Your task to perform on an android device: View the shopping cart on bestbuy.com. Search for usb-c to usb-a on bestbuy.com, select the first entry, and add it to the cart. Image 0: 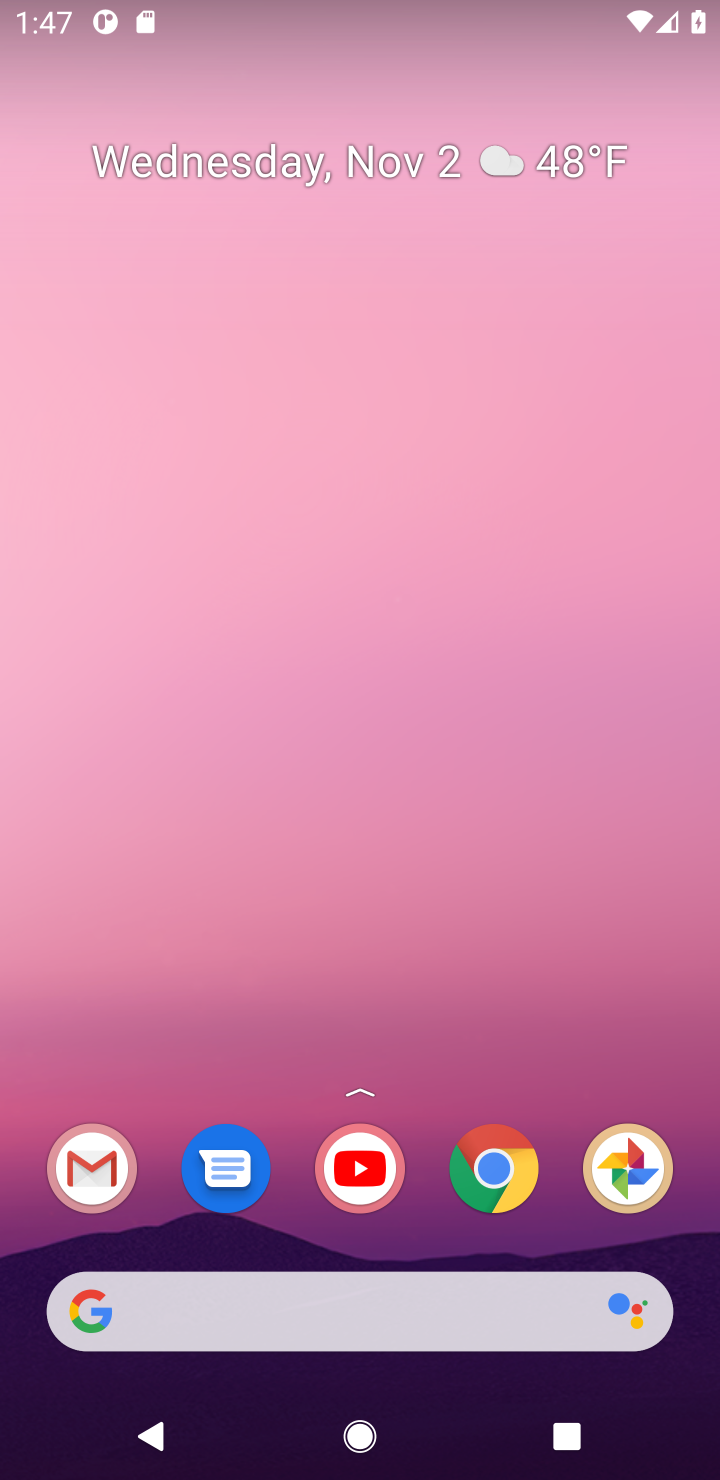
Step 0: click (317, 1307)
Your task to perform on an android device: View the shopping cart on bestbuy.com. Search for usb-c to usb-a on bestbuy.com, select the first entry, and add it to the cart. Image 1: 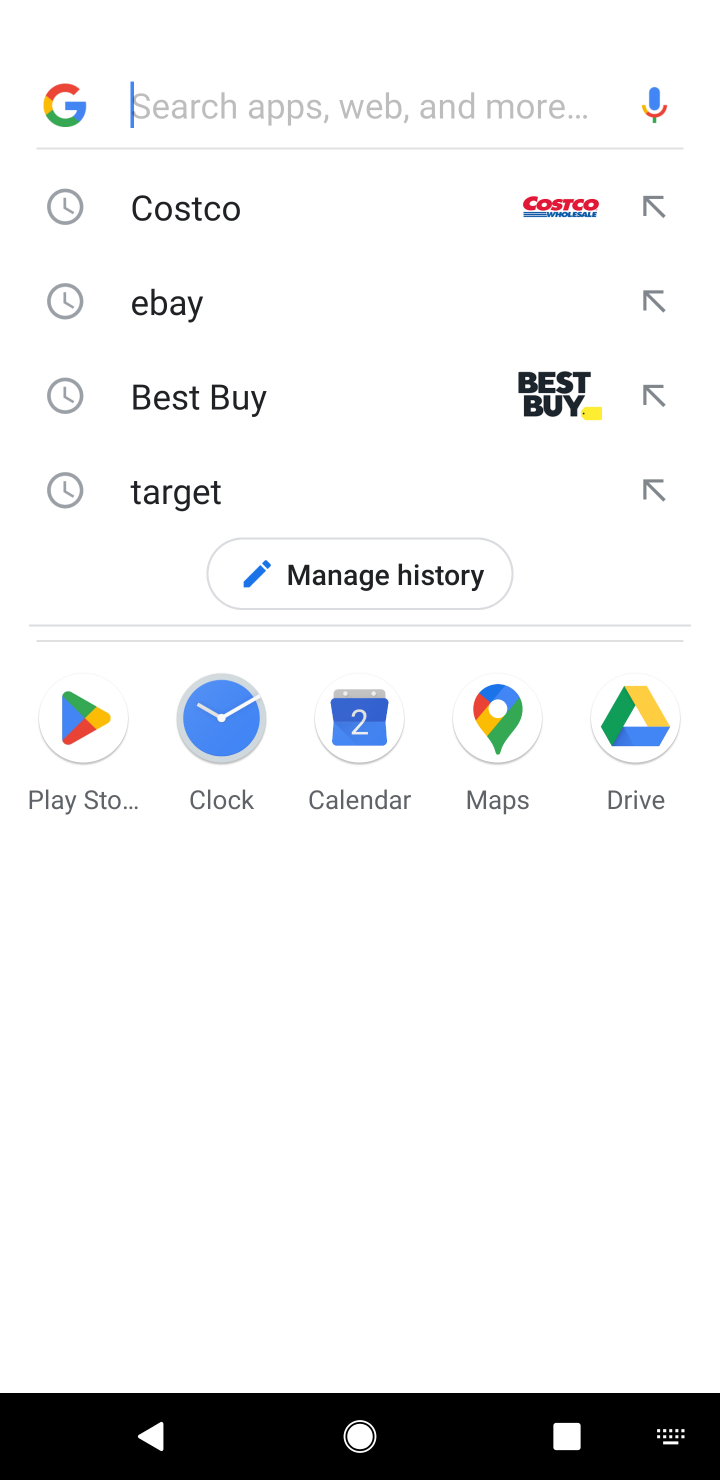
Step 1: type "bestbuy.com"
Your task to perform on an android device: View the shopping cart on bestbuy.com. Search for usb-c to usb-a on bestbuy.com, select the first entry, and add it to the cart. Image 2: 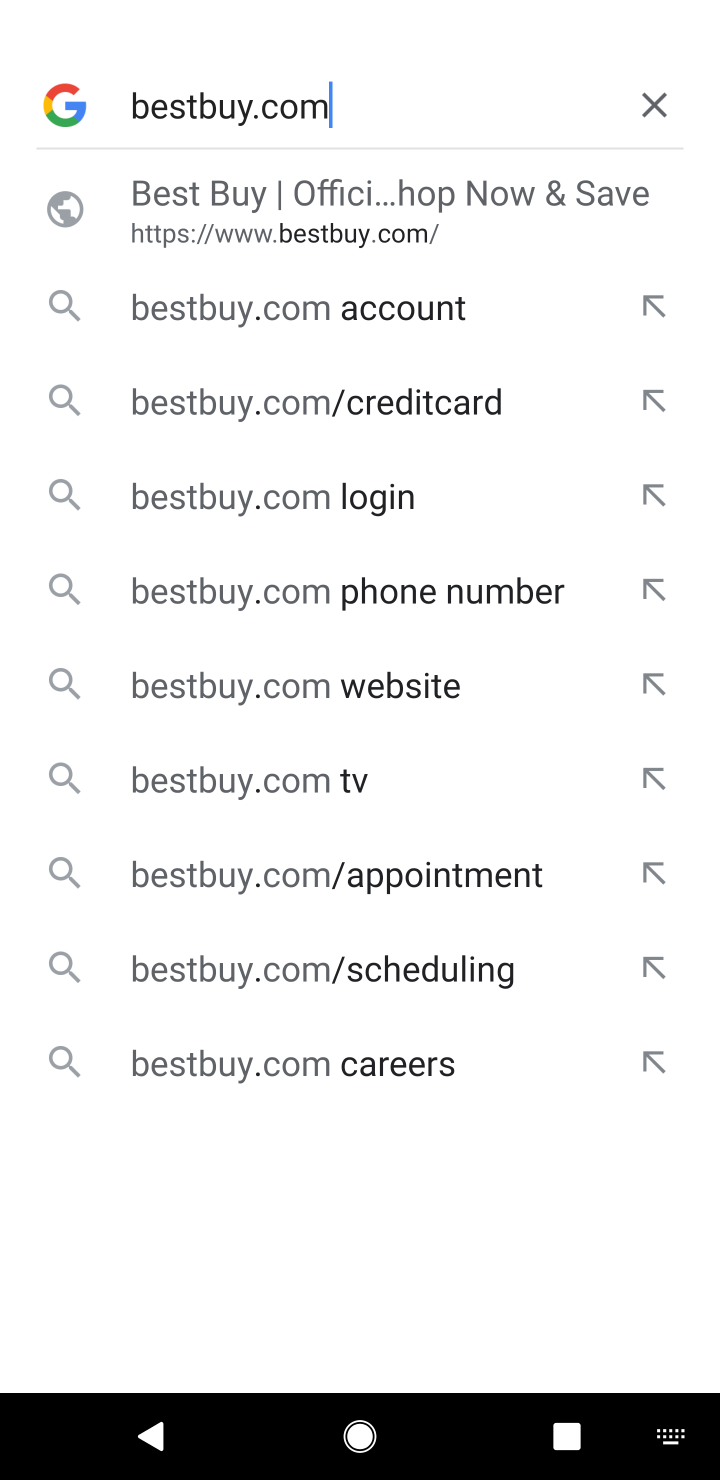
Step 2: click (310, 227)
Your task to perform on an android device: View the shopping cart on bestbuy.com. Search for usb-c to usb-a on bestbuy.com, select the first entry, and add it to the cart. Image 3: 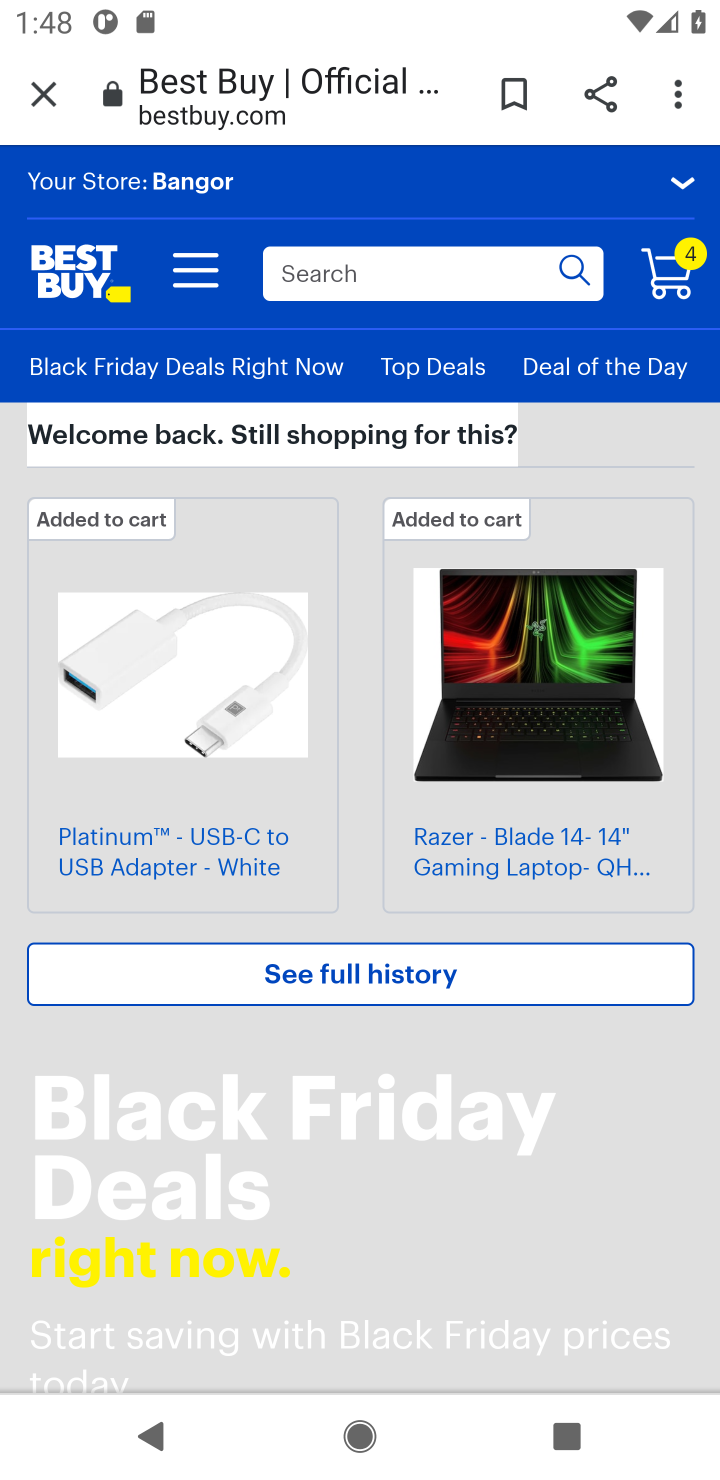
Step 3: click (664, 288)
Your task to perform on an android device: View the shopping cart on bestbuy.com. Search for usb-c to usb-a on bestbuy.com, select the first entry, and add it to the cart. Image 4: 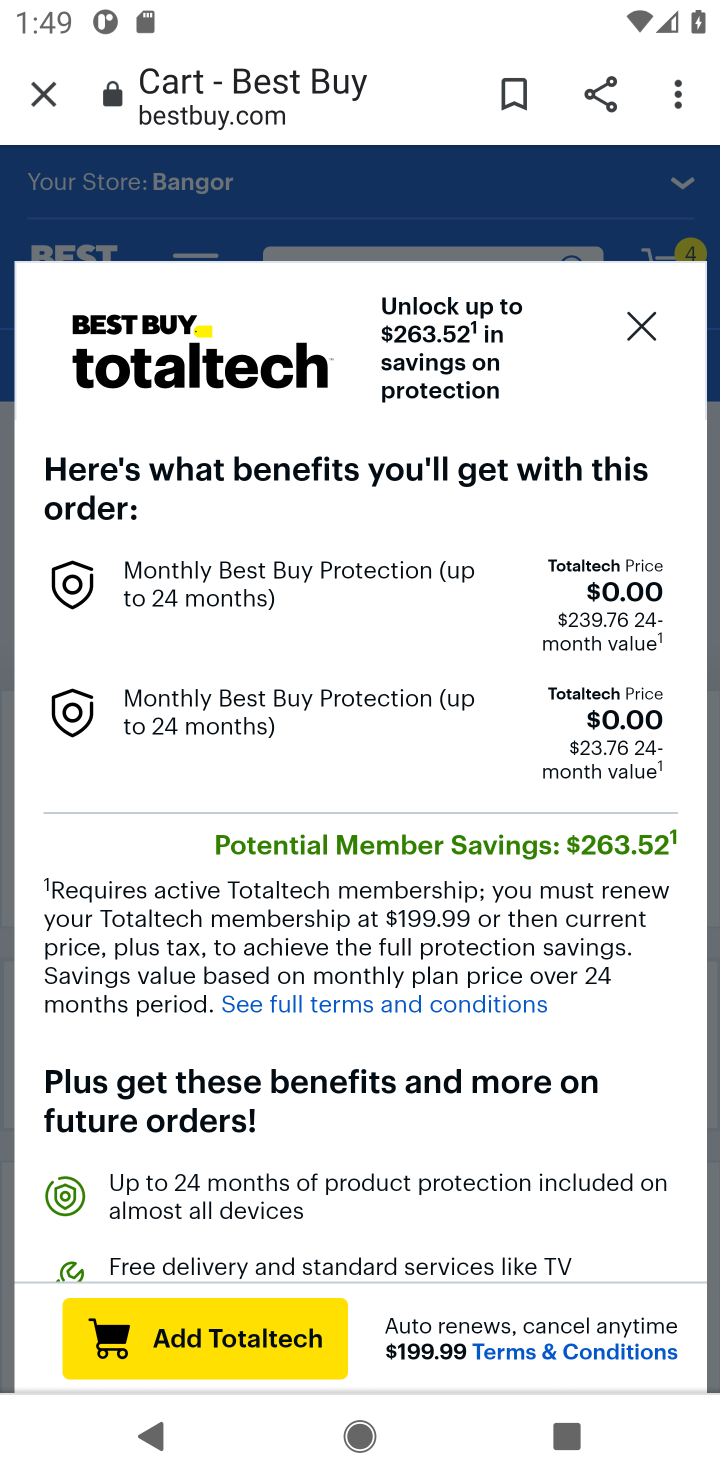
Step 4: click (406, 281)
Your task to perform on an android device: View the shopping cart on bestbuy.com. Search for usb-c to usb-a on bestbuy.com, select the first entry, and add it to the cart. Image 5: 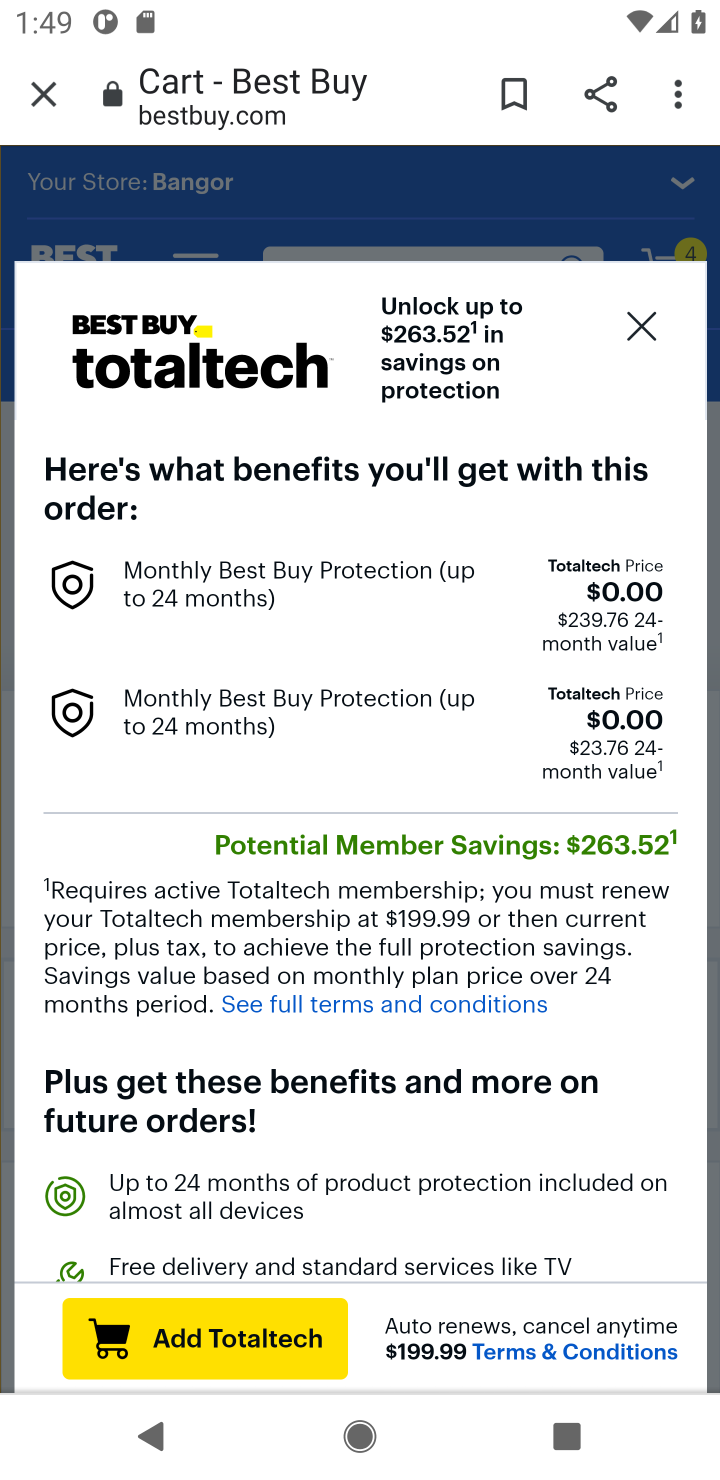
Step 5: click (637, 318)
Your task to perform on an android device: View the shopping cart on bestbuy.com. Search for usb-c to usb-a on bestbuy.com, select the first entry, and add it to the cart. Image 6: 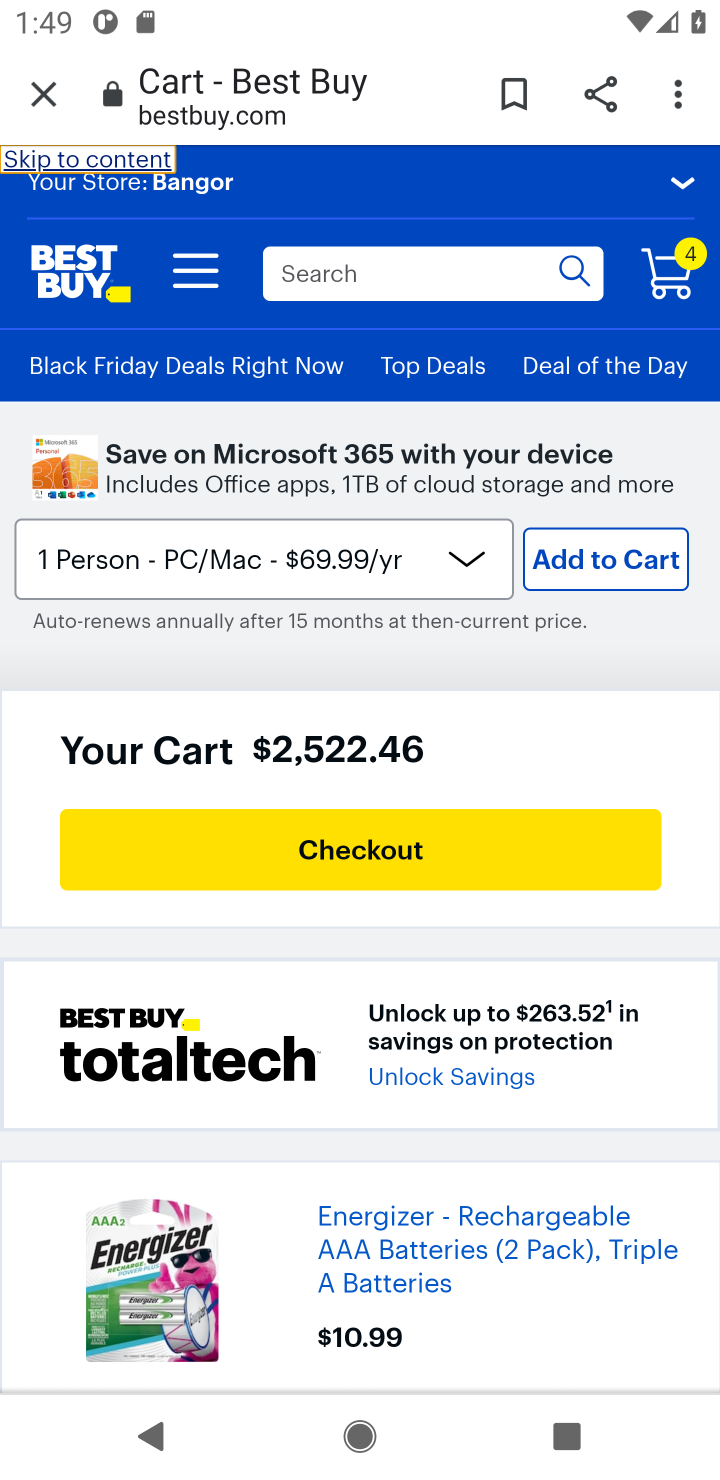
Step 6: click (433, 275)
Your task to perform on an android device: View the shopping cart on bestbuy.com. Search for usb-c to usb-a on bestbuy.com, select the first entry, and add it to the cart. Image 7: 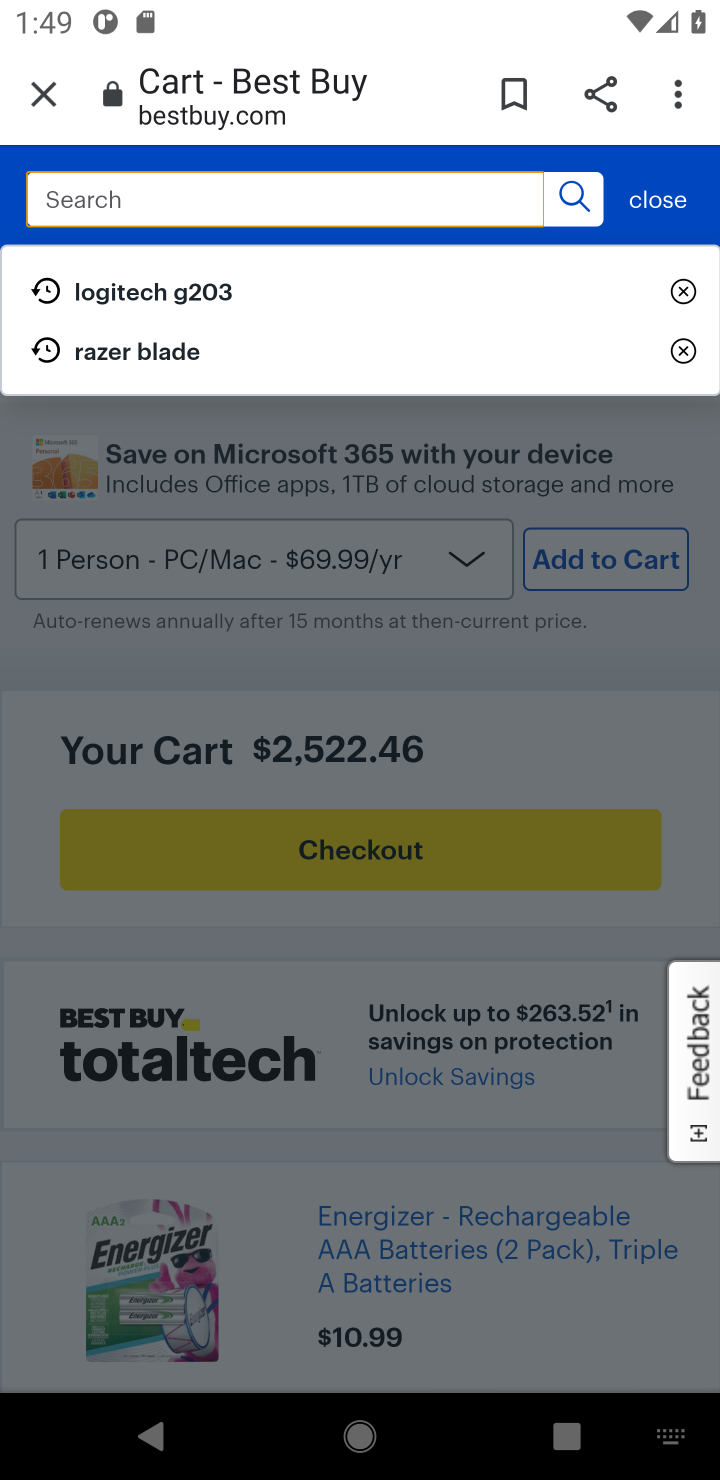
Step 7: type "usb-c to usb-a"
Your task to perform on an android device: View the shopping cart on bestbuy.com. Search for usb-c to usb-a on bestbuy.com, select the first entry, and add it to the cart. Image 8: 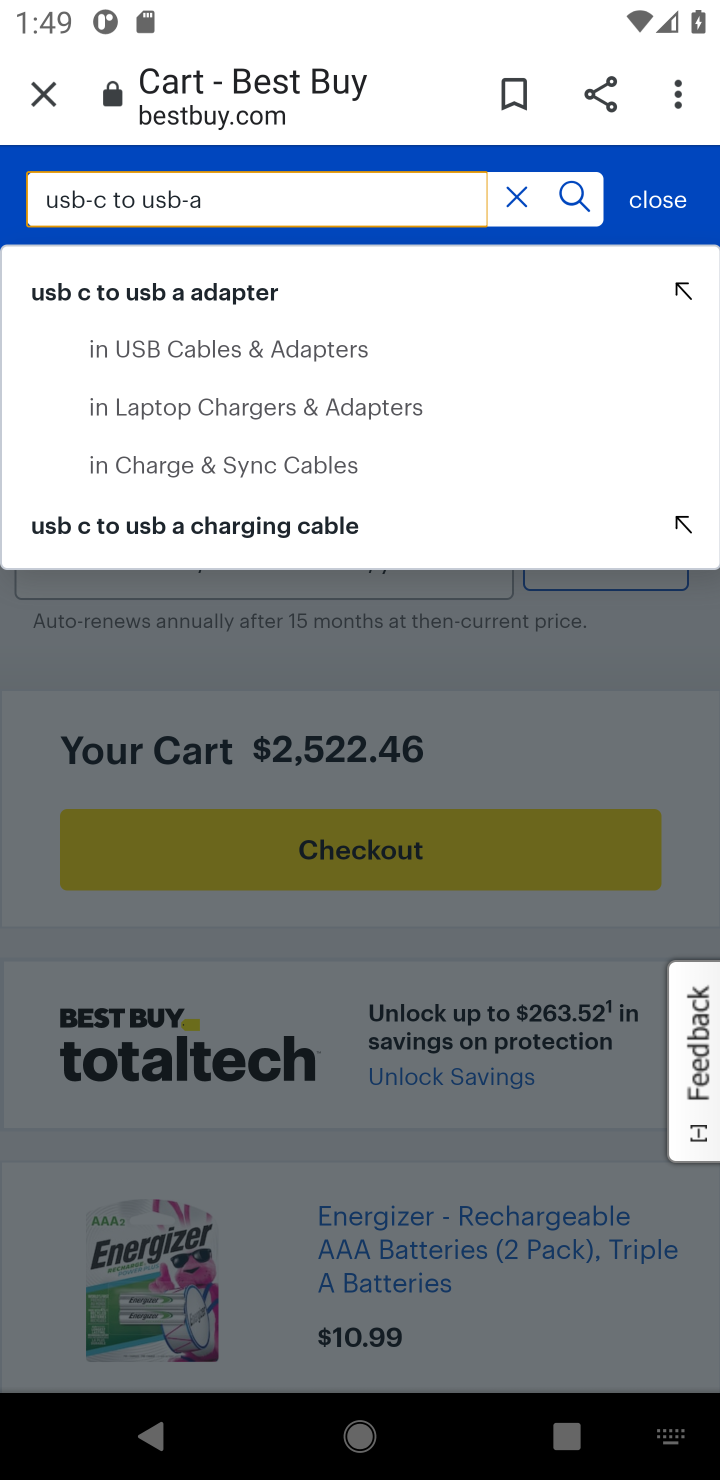
Step 8: click (197, 276)
Your task to perform on an android device: View the shopping cart on bestbuy.com. Search for usb-c to usb-a on bestbuy.com, select the first entry, and add it to the cart. Image 9: 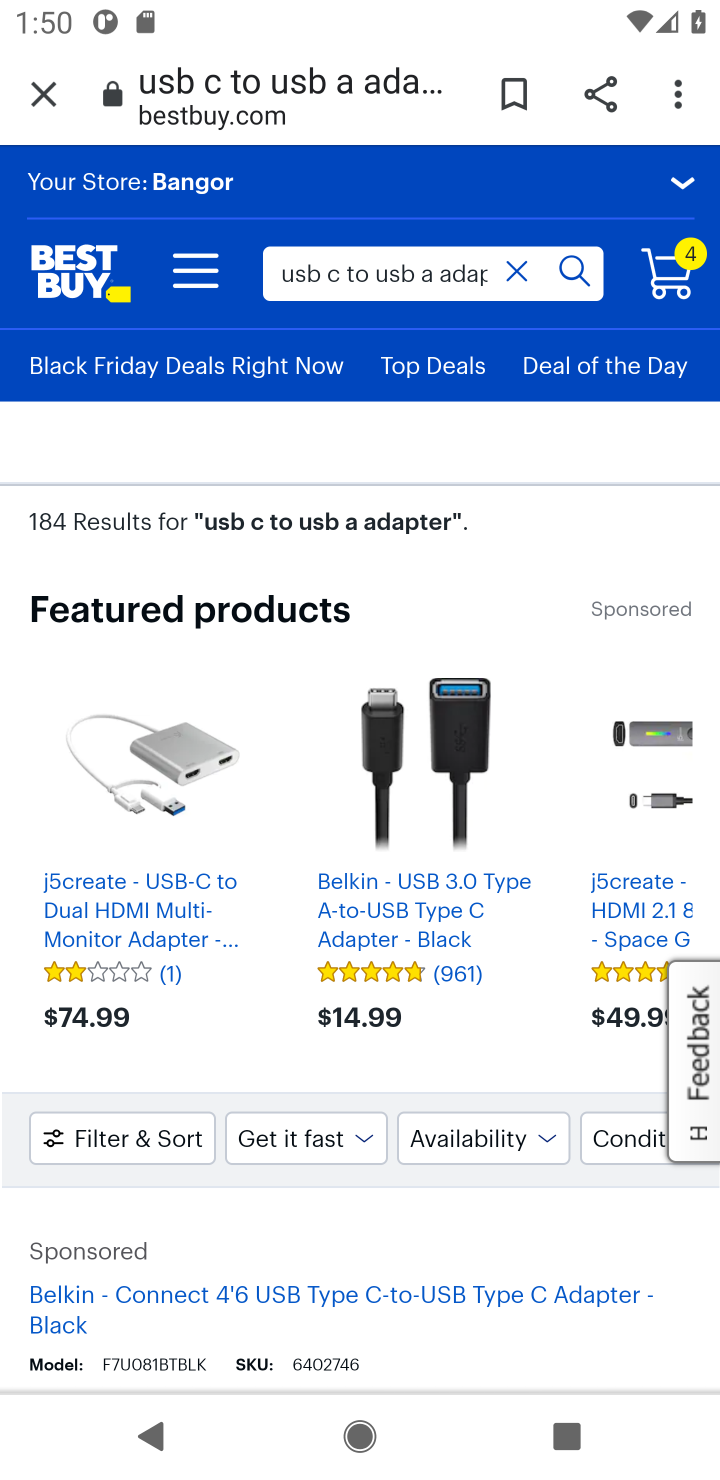
Step 9: click (144, 880)
Your task to perform on an android device: View the shopping cart on bestbuy.com. Search for usb-c to usb-a on bestbuy.com, select the first entry, and add it to the cart. Image 10: 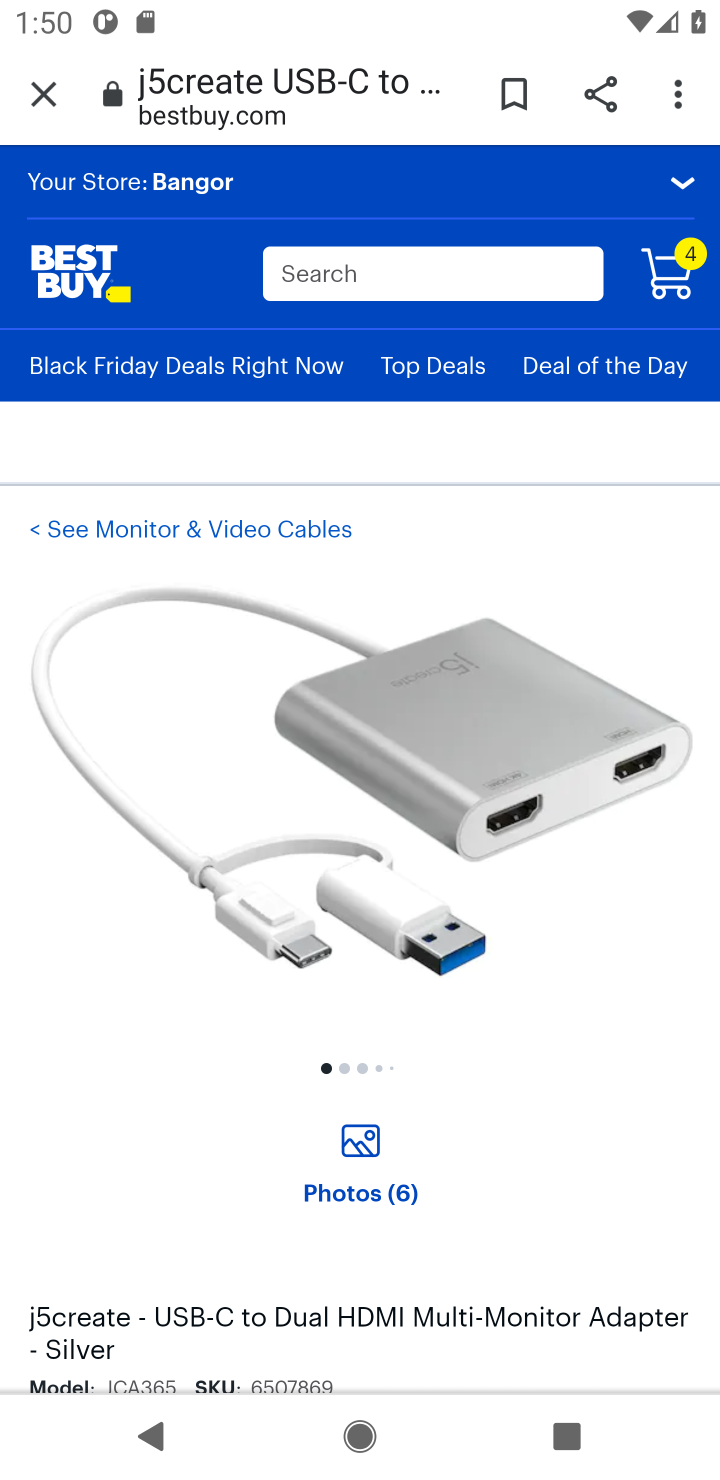
Step 10: drag from (386, 1095) to (422, 628)
Your task to perform on an android device: View the shopping cart on bestbuy.com. Search for usb-c to usb-a on bestbuy.com, select the first entry, and add it to the cart. Image 11: 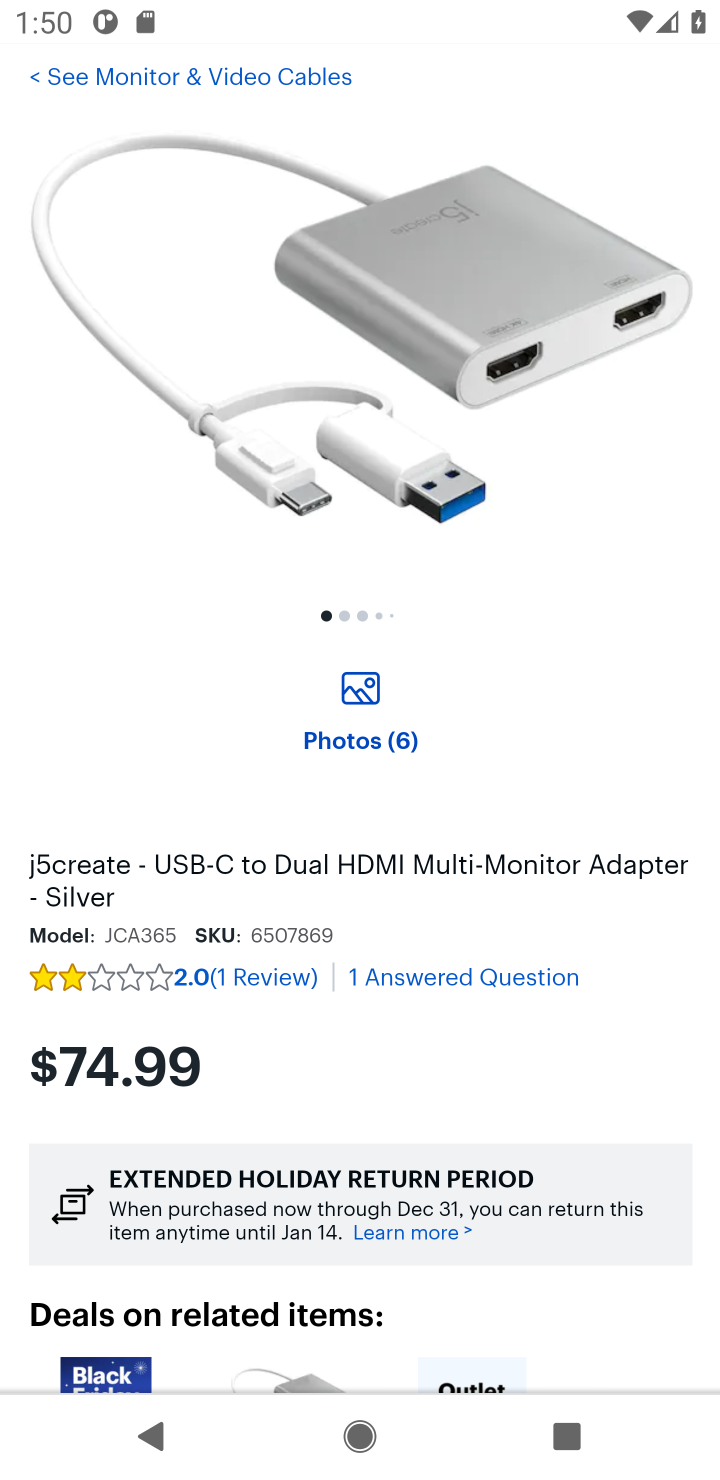
Step 11: drag from (330, 678) to (368, 370)
Your task to perform on an android device: View the shopping cart on bestbuy.com. Search for usb-c to usb-a on bestbuy.com, select the first entry, and add it to the cart. Image 12: 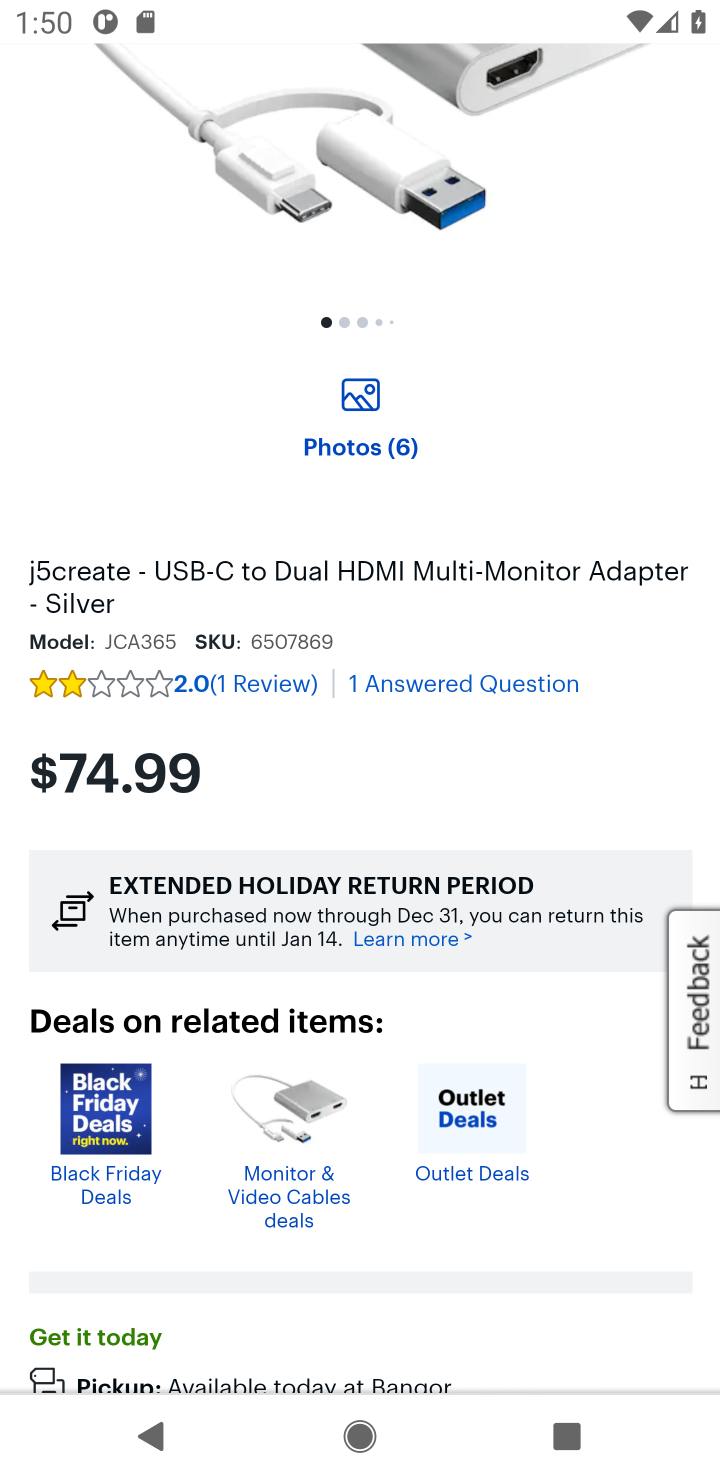
Step 12: drag from (542, 1098) to (518, 591)
Your task to perform on an android device: View the shopping cart on bestbuy.com. Search for usb-c to usb-a on bestbuy.com, select the first entry, and add it to the cart. Image 13: 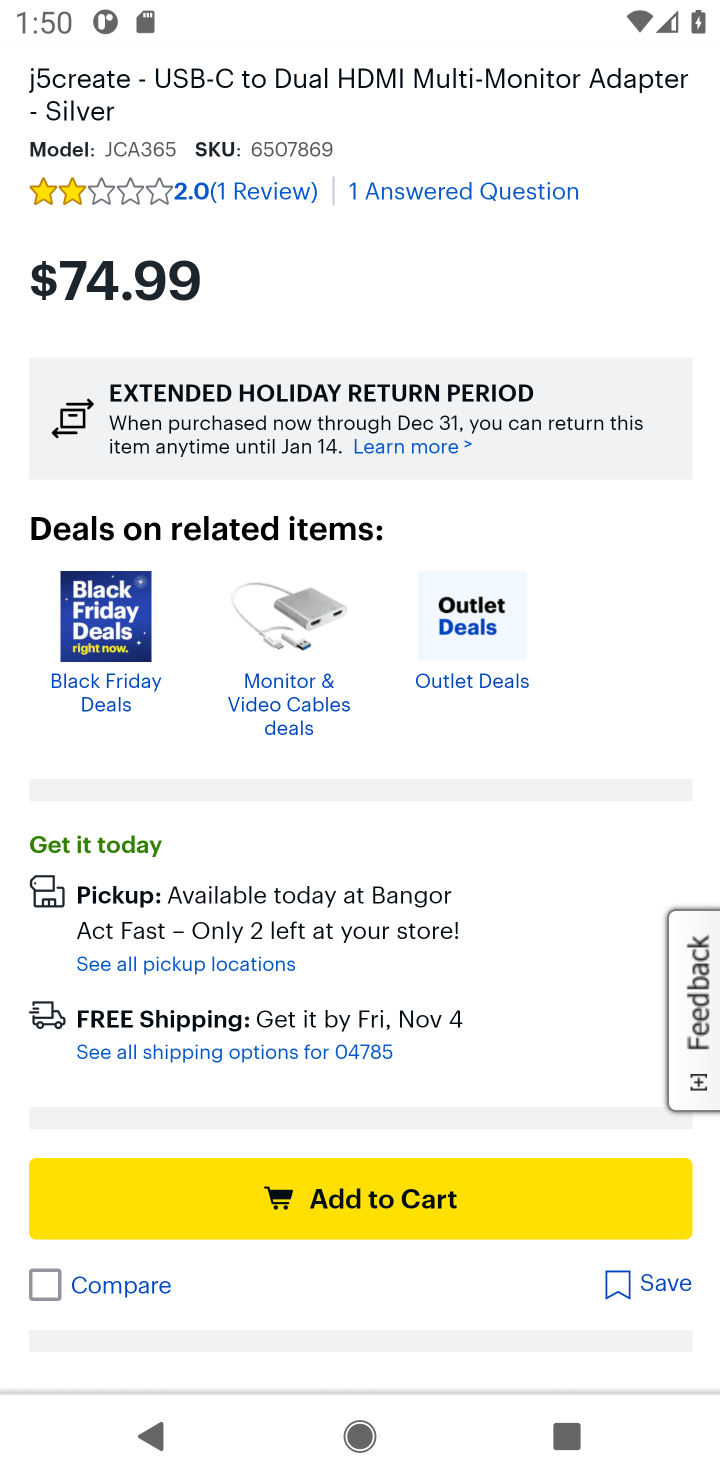
Step 13: click (371, 1199)
Your task to perform on an android device: View the shopping cart on bestbuy.com. Search for usb-c to usb-a on bestbuy.com, select the first entry, and add it to the cart. Image 14: 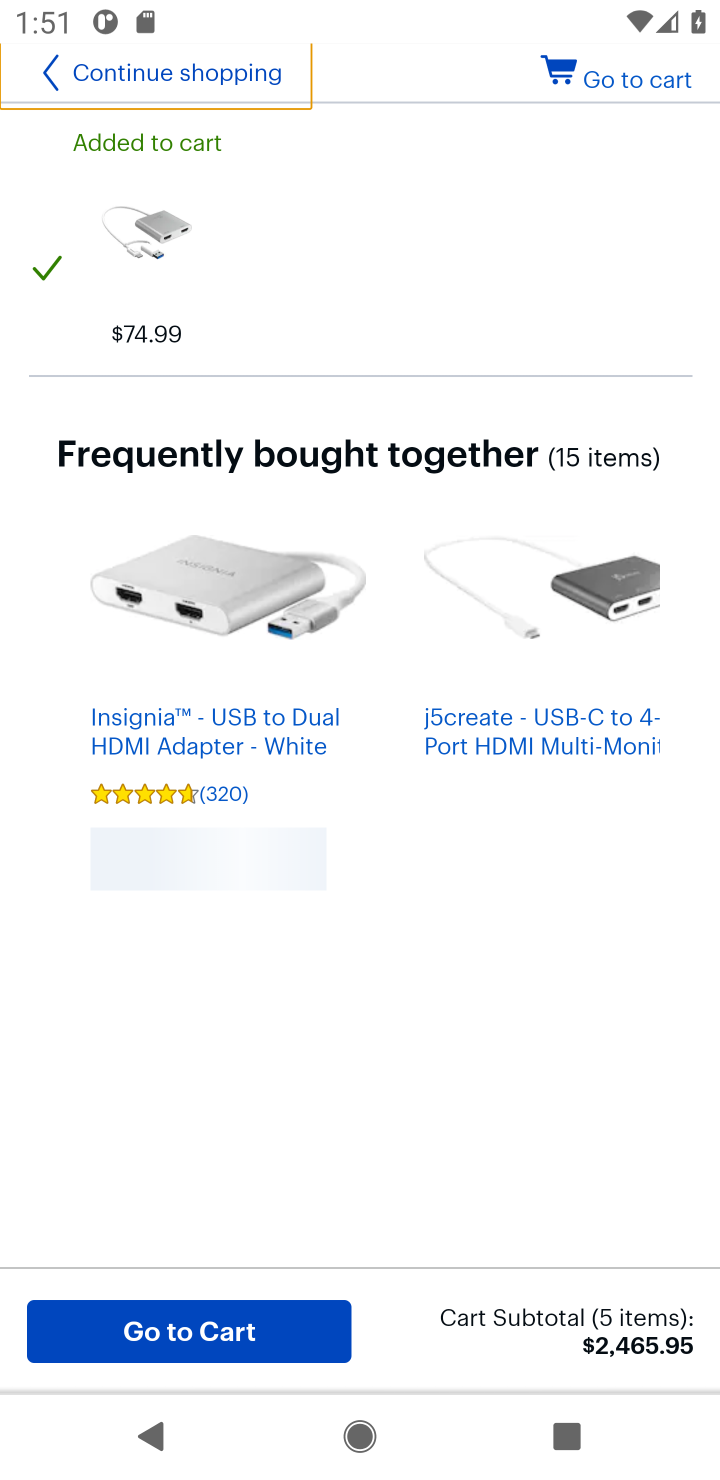
Step 14: task complete